Your task to perform on an android device: change your default location settings in chrome Image 0: 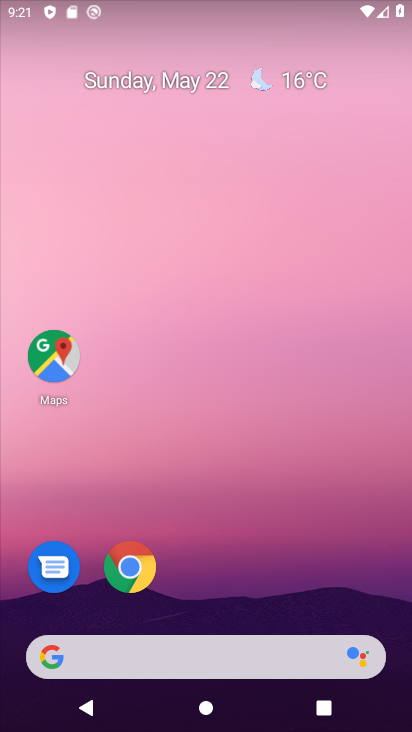
Step 0: drag from (173, 598) to (254, 29)
Your task to perform on an android device: change your default location settings in chrome Image 1: 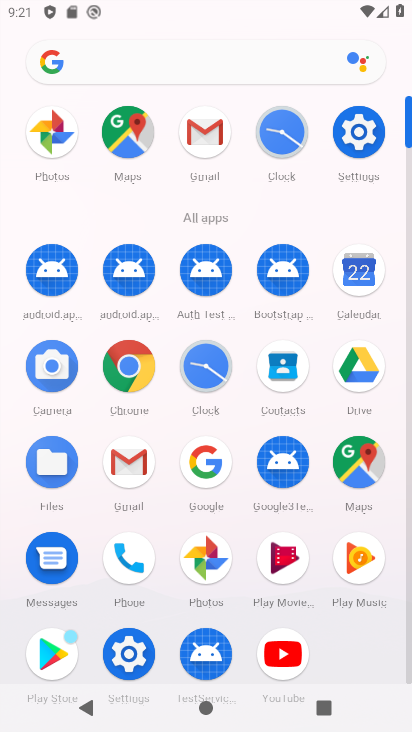
Step 1: click (132, 362)
Your task to perform on an android device: change your default location settings in chrome Image 2: 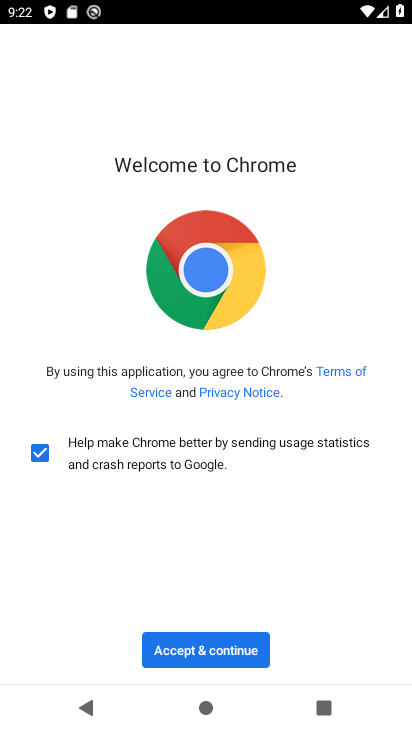
Step 2: click (226, 655)
Your task to perform on an android device: change your default location settings in chrome Image 3: 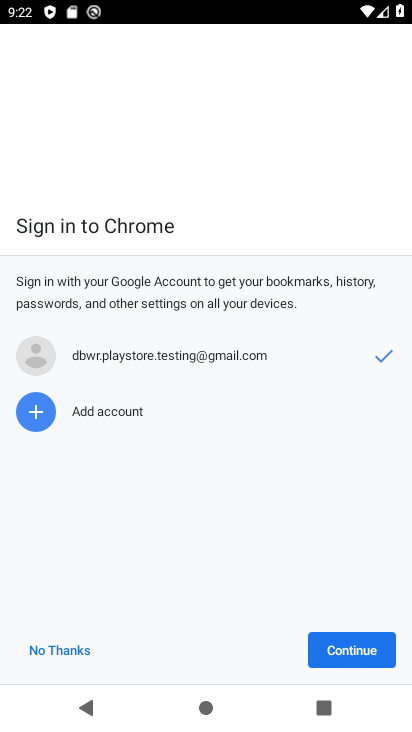
Step 3: click (344, 643)
Your task to perform on an android device: change your default location settings in chrome Image 4: 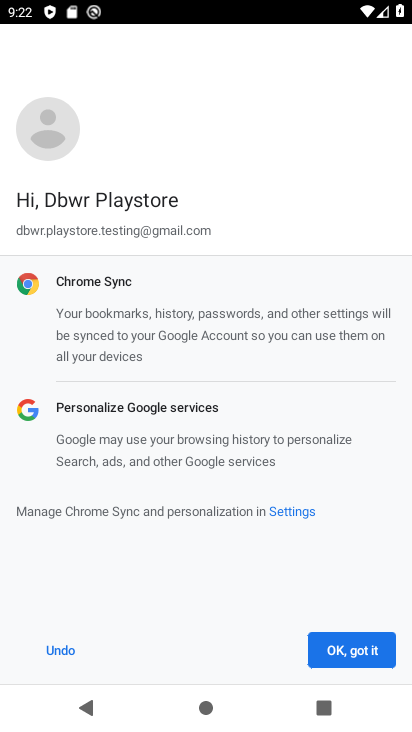
Step 4: click (356, 662)
Your task to perform on an android device: change your default location settings in chrome Image 5: 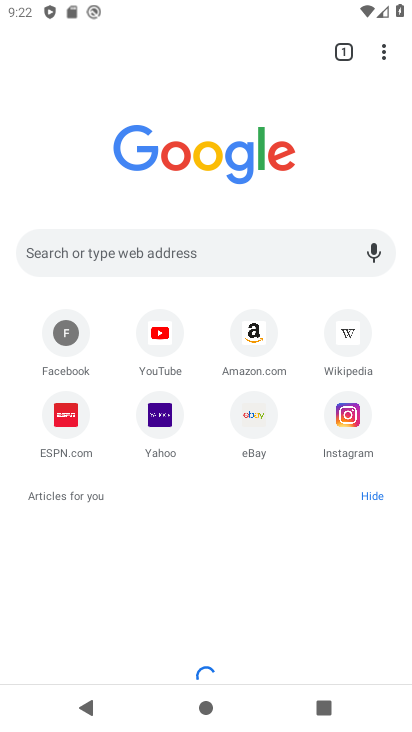
Step 5: click (382, 52)
Your task to perform on an android device: change your default location settings in chrome Image 6: 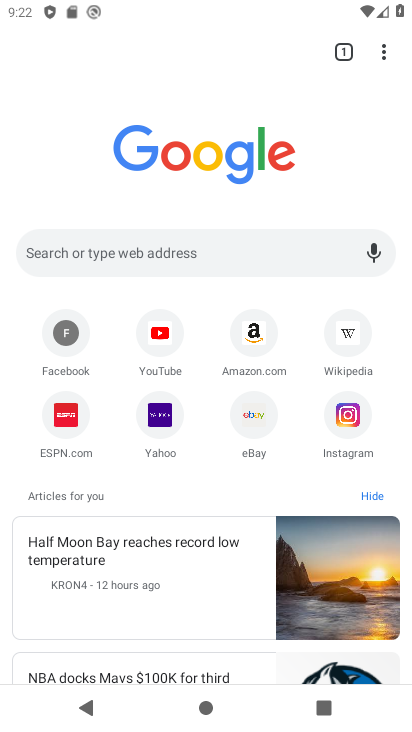
Step 6: drag from (382, 52) to (190, 435)
Your task to perform on an android device: change your default location settings in chrome Image 7: 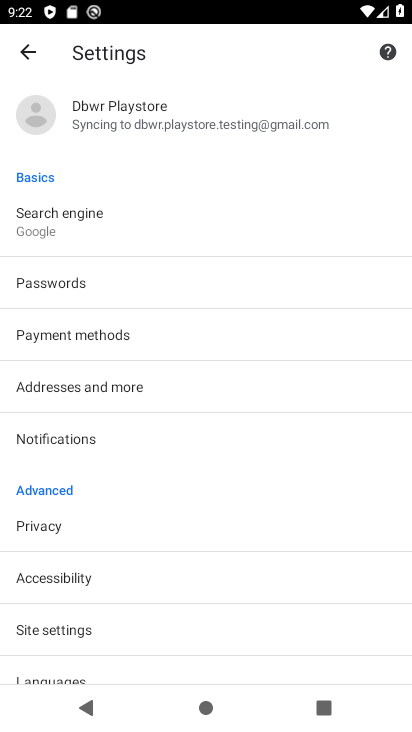
Step 7: drag from (153, 565) to (164, 6)
Your task to perform on an android device: change your default location settings in chrome Image 8: 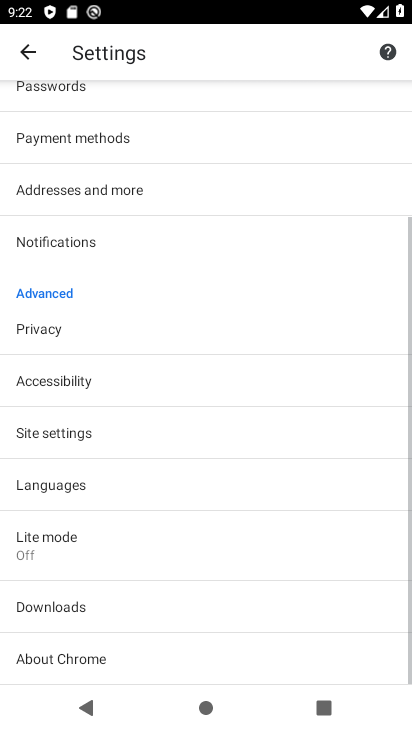
Step 8: drag from (48, 537) to (52, 289)
Your task to perform on an android device: change your default location settings in chrome Image 9: 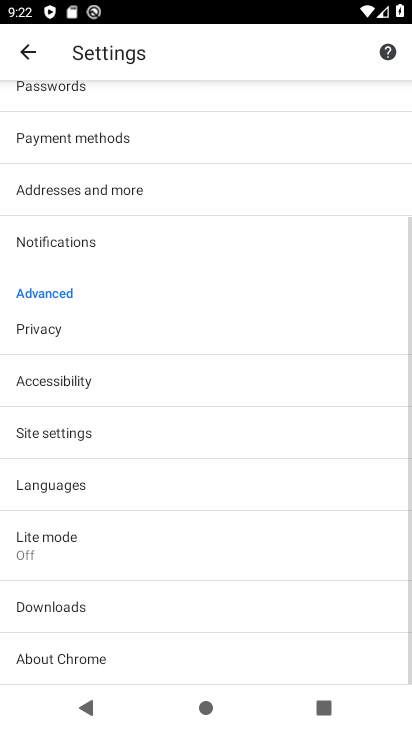
Step 9: click (68, 440)
Your task to perform on an android device: change your default location settings in chrome Image 10: 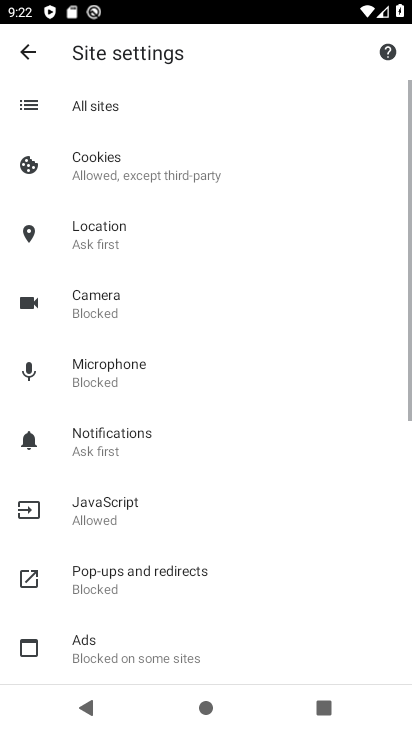
Step 10: click (90, 241)
Your task to perform on an android device: change your default location settings in chrome Image 11: 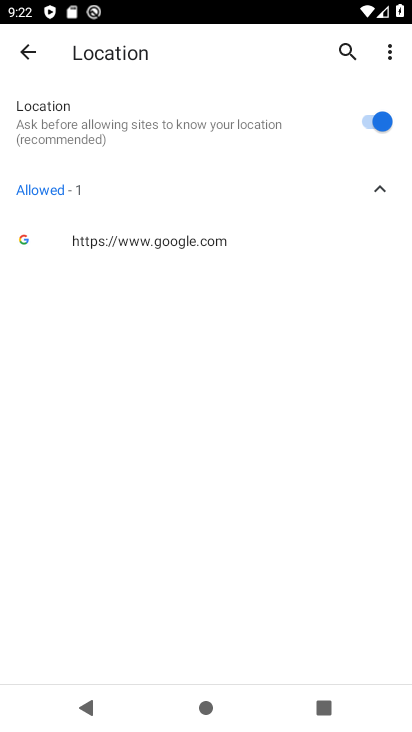
Step 11: click (374, 123)
Your task to perform on an android device: change your default location settings in chrome Image 12: 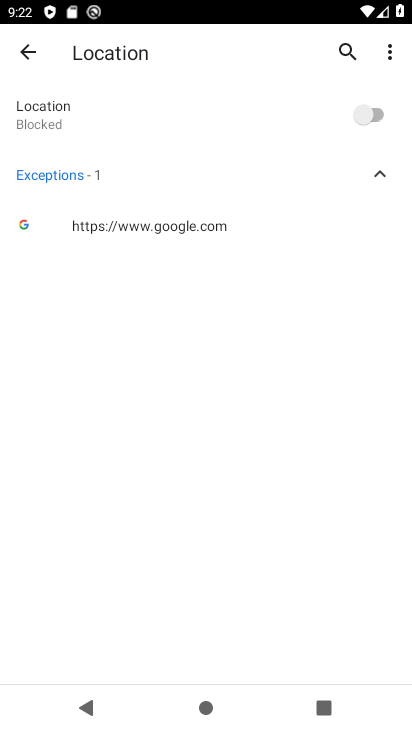
Step 12: task complete